Your task to perform on an android device: open wifi settings Image 0: 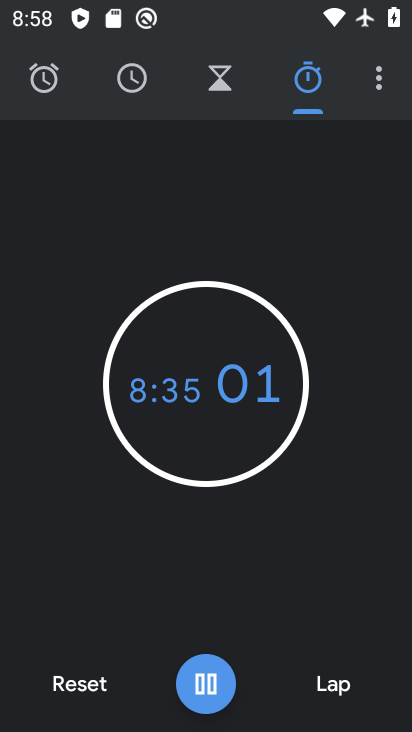
Step 0: press home button
Your task to perform on an android device: open wifi settings Image 1: 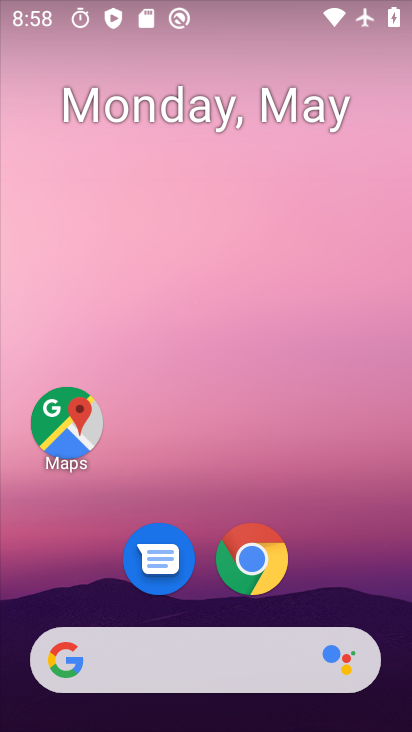
Step 1: drag from (327, 590) to (306, 33)
Your task to perform on an android device: open wifi settings Image 2: 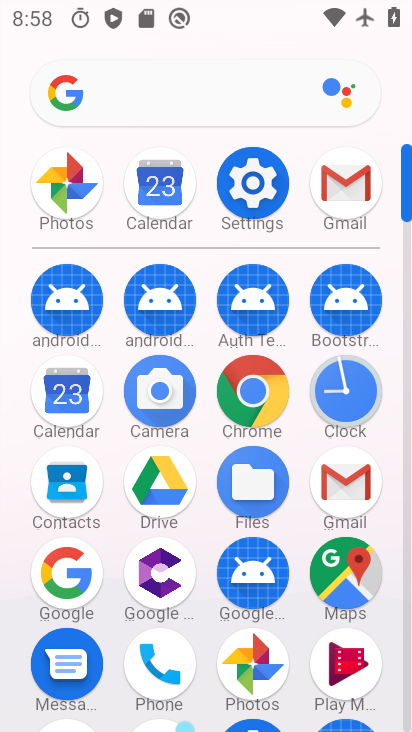
Step 2: click (255, 186)
Your task to perform on an android device: open wifi settings Image 3: 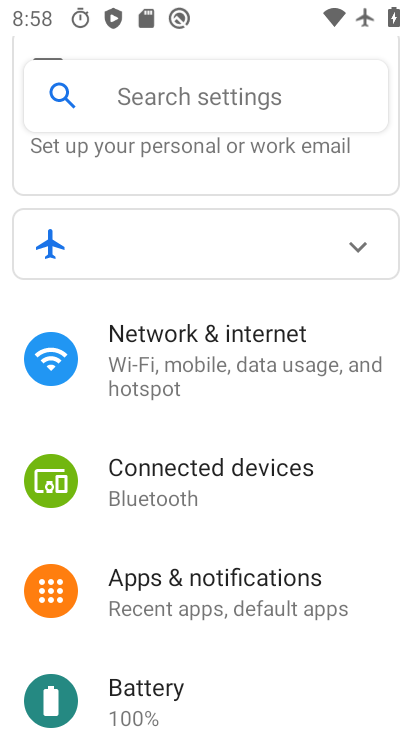
Step 3: click (179, 381)
Your task to perform on an android device: open wifi settings Image 4: 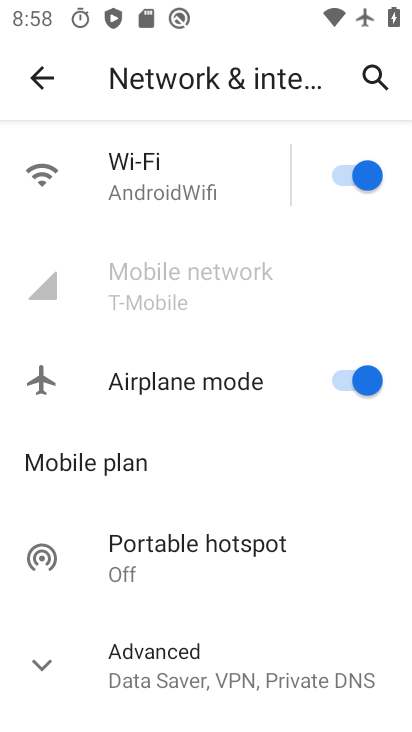
Step 4: click (135, 179)
Your task to perform on an android device: open wifi settings Image 5: 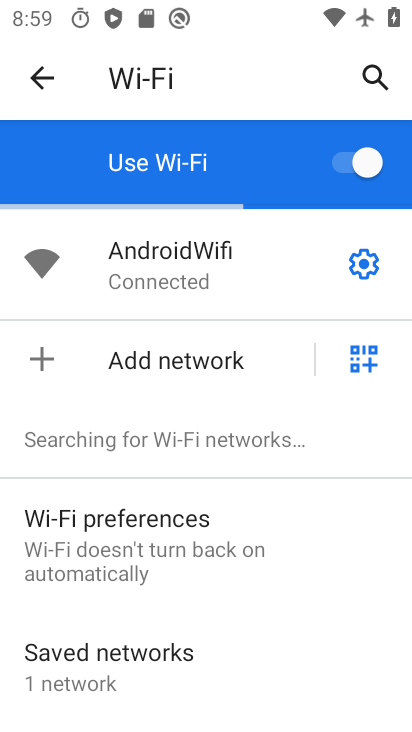
Step 5: task complete